Your task to perform on an android device: Go to settings Image 0: 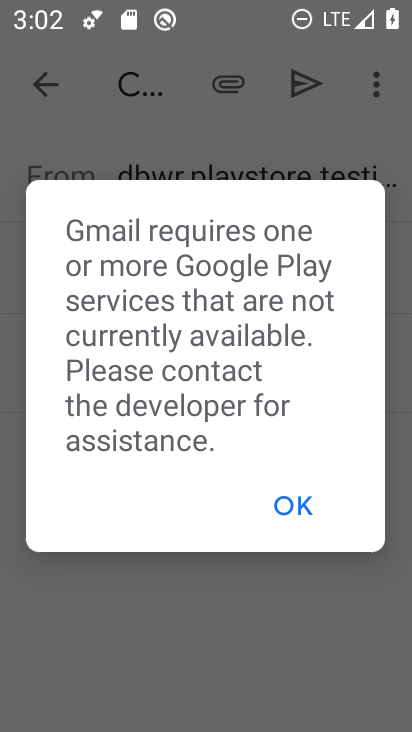
Step 0: press home button
Your task to perform on an android device: Go to settings Image 1: 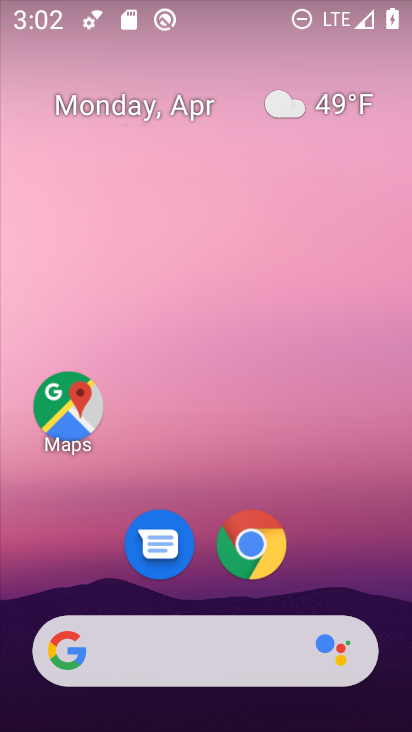
Step 1: drag from (346, 565) to (255, 61)
Your task to perform on an android device: Go to settings Image 2: 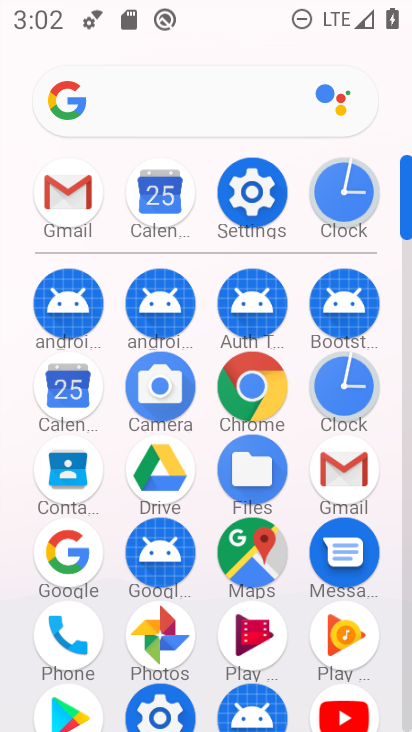
Step 2: click (255, 206)
Your task to perform on an android device: Go to settings Image 3: 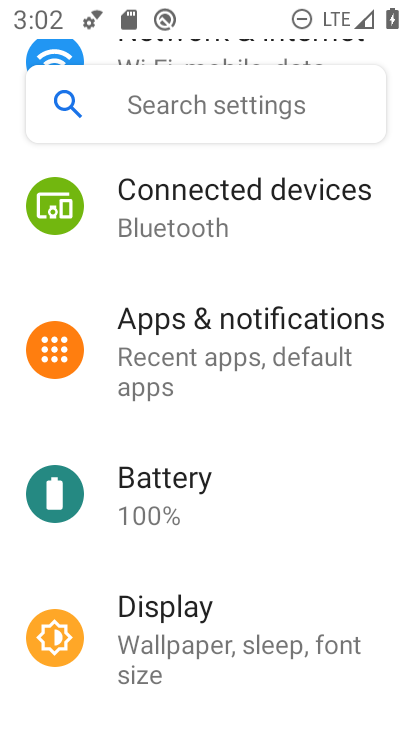
Step 3: task complete